Your task to perform on an android device: Go to battery settings Image 0: 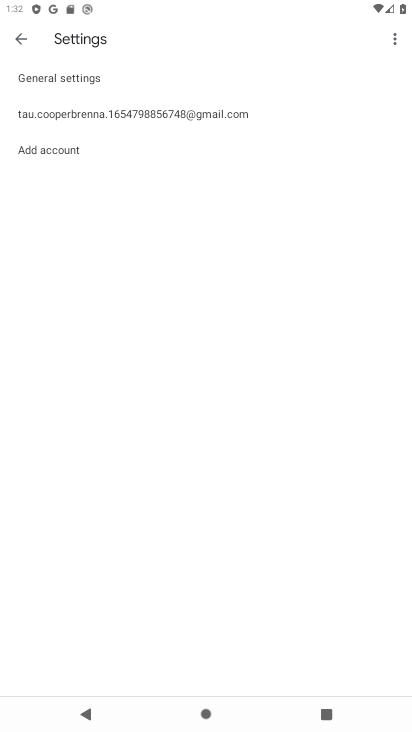
Step 0: press home button
Your task to perform on an android device: Go to battery settings Image 1: 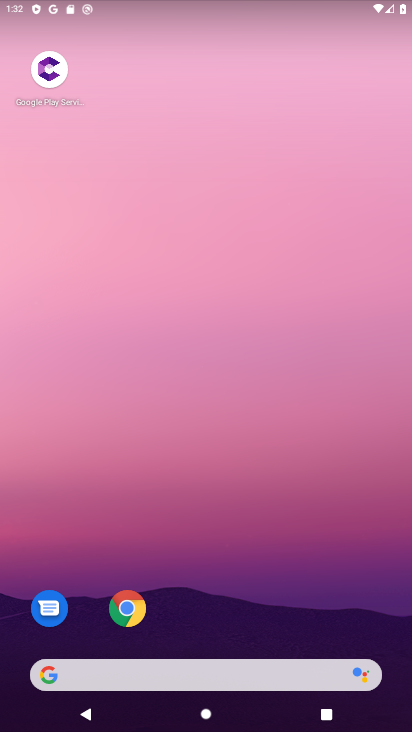
Step 1: drag from (38, 688) to (218, 243)
Your task to perform on an android device: Go to battery settings Image 2: 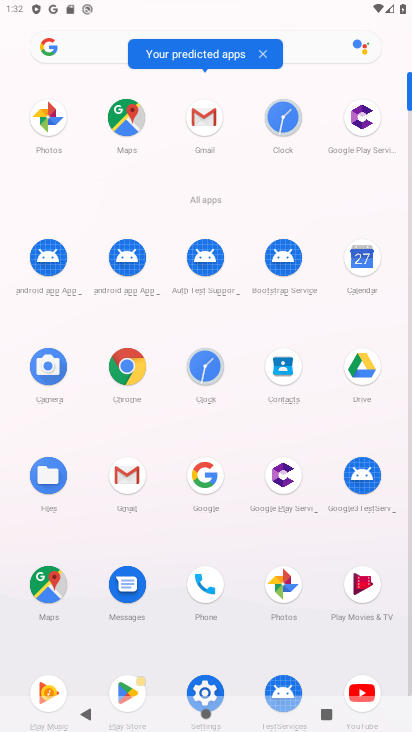
Step 2: click (219, 696)
Your task to perform on an android device: Go to battery settings Image 3: 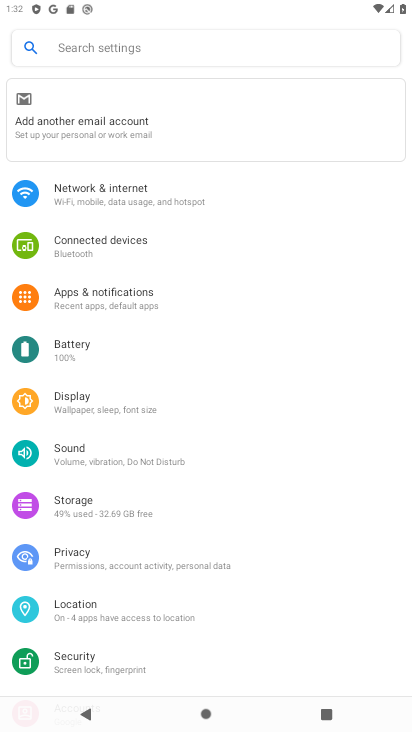
Step 3: click (75, 353)
Your task to perform on an android device: Go to battery settings Image 4: 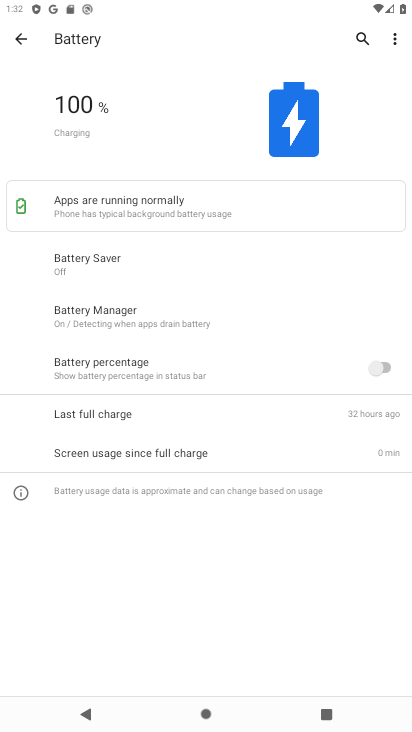
Step 4: task complete